Your task to perform on an android device: delete location history Image 0: 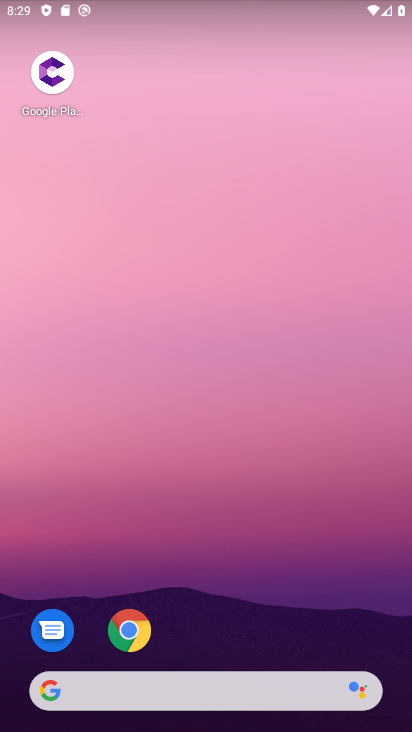
Step 0: press home button
Your task to perform on an android device: delete location history Image 1: 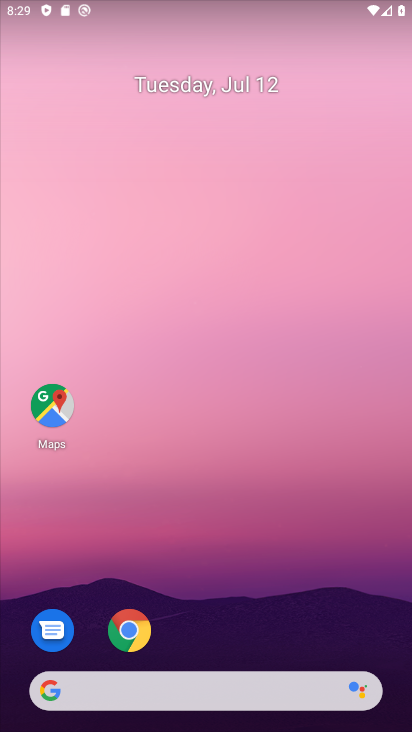
Step 1: drag from (328, 595) to (325, 132)
Your task to perform on an android device: delete location history Image 2: 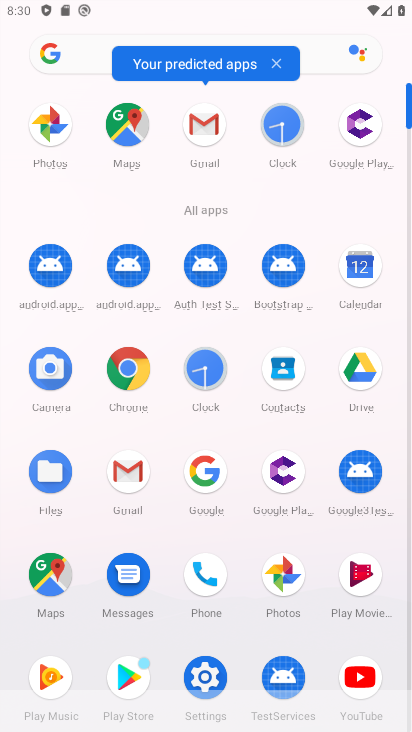
Step 2: click (212, 680)
Your task to perform on an android device: delete location history Image 3: 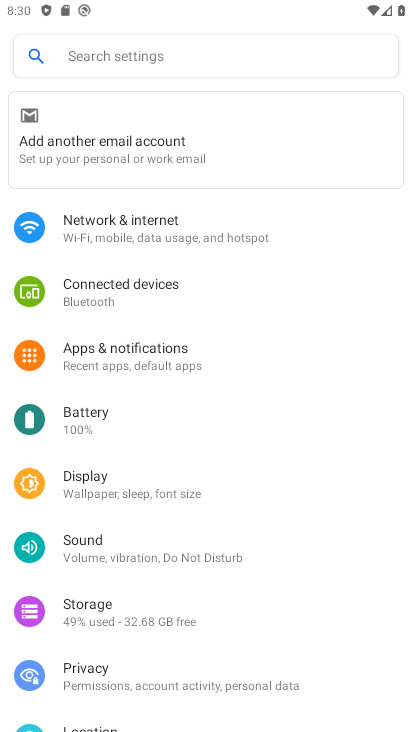
Step 3: drag from (203, 654) to (224, 314)
Your task to perform on an android device: delete location history Image 4: 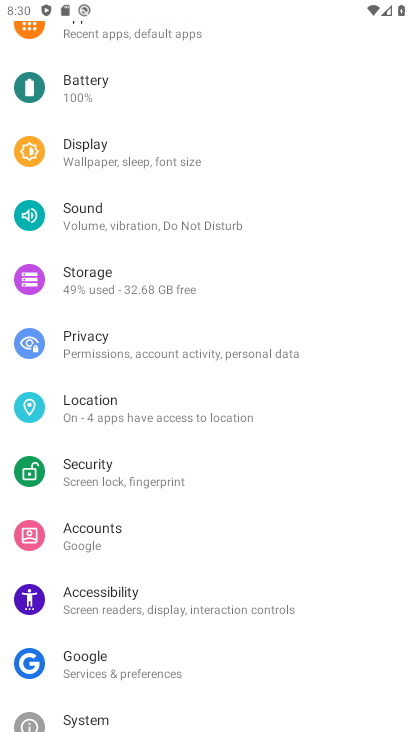
Step 4: click (129, 414)
Your task to perform on an android device: delete location history Image 5: 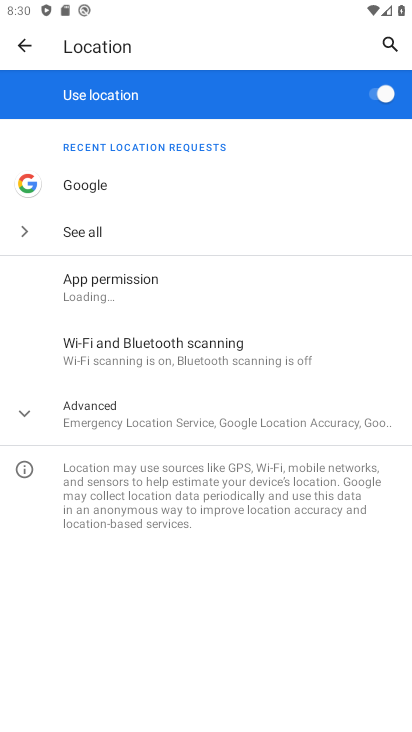
Step 5: click (24, 420)
Your task to perform on an android device: delete location history Image 6: 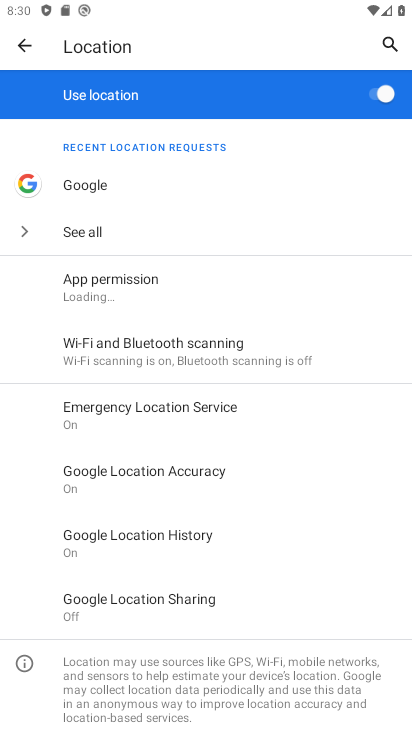
Step 6: click (191, 538)
Your task to perform on an android device: delete location history Image 7: 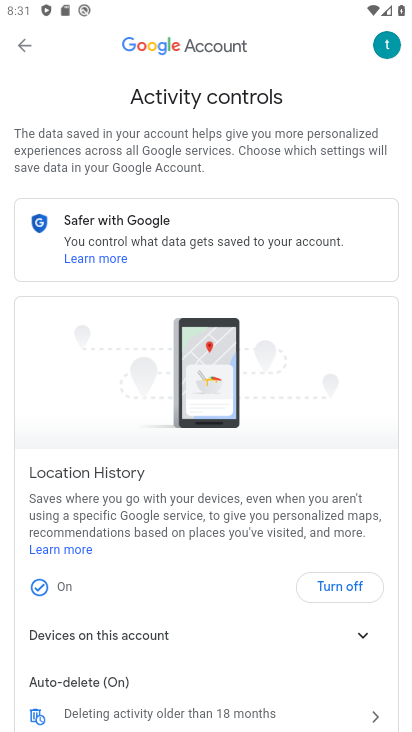
Step 7: task complete